Your task to perform on an android device: Open the phone app and click the voicemail tab. Image 0: 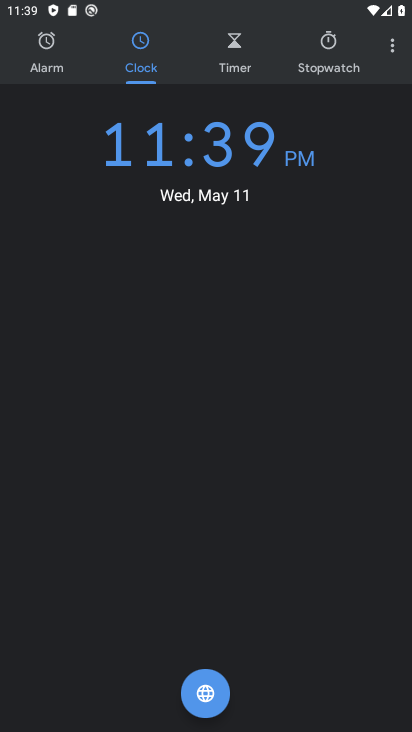
Step 0: press back button
Your task to perform on an android device: Open the phone app and click the voicemail tab. Image 1: 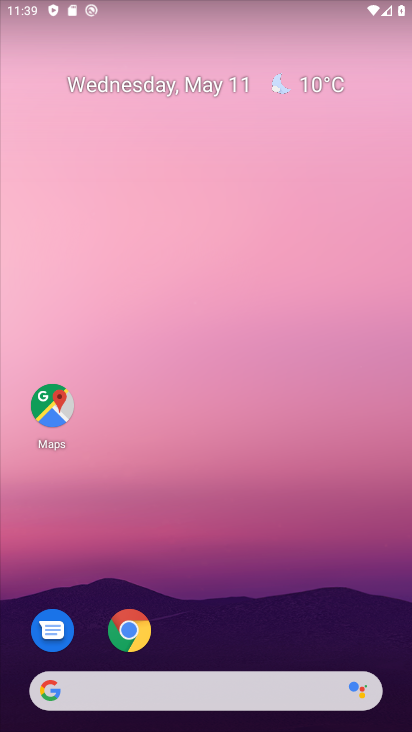
Step 1: drag from (223, 657) to (342, 201)
Your task to perform on an android device: Open the phone app and click the voicemail tab. Image 2: 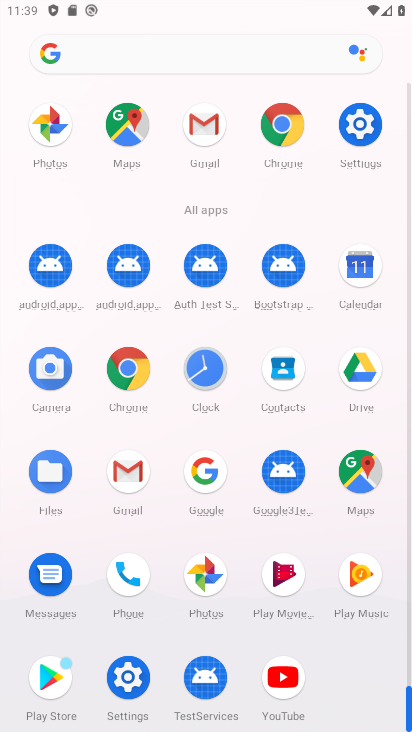
Step 2: click (133, 574)
Your task to perform on an android device: Open the phone app and click the voicemail tab. Image 3: 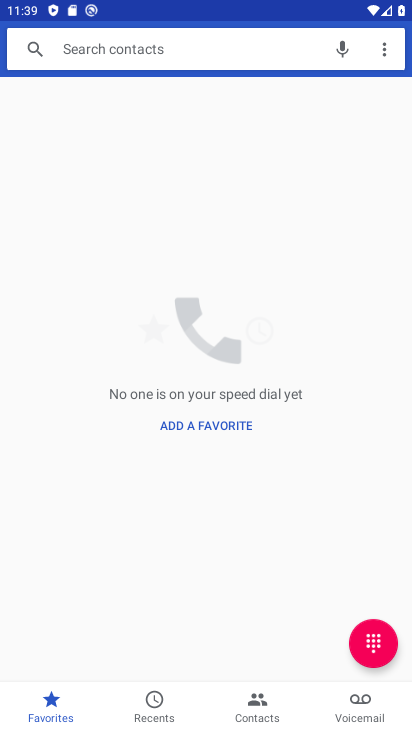
Step 3: click (355, 713)
Your task to perform on an android device: Open the phone app and click the voicemail tab. Image 4: 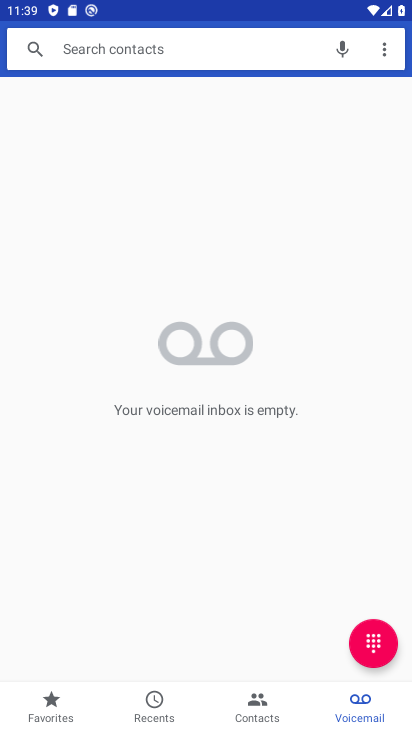
Step 4: task complete